Your task to perform on an android device: Go to Android settings Image 0: 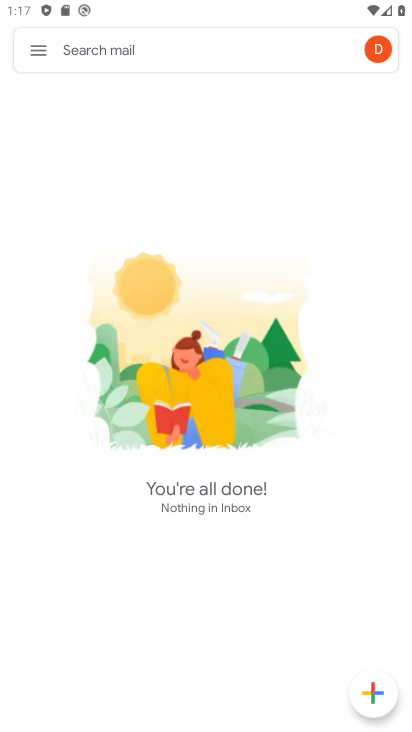
Step 0: press back button
Your task to perform on an android device: Go to Android settings Image 1: 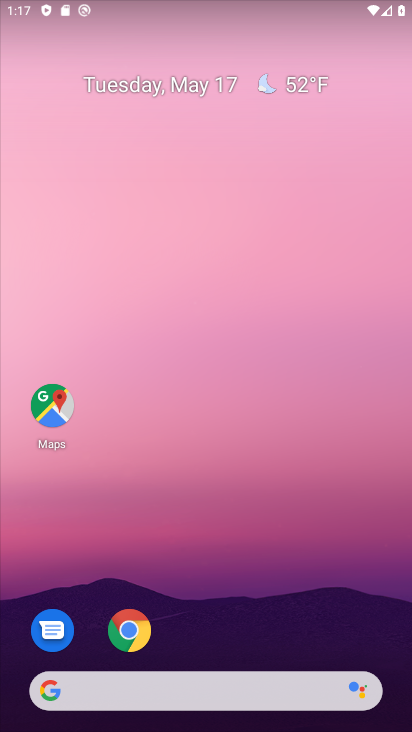
Step 1: drag from (232, 541) to (305, 51)
Your task to perform on an android device: Go to Android settings Image 2: 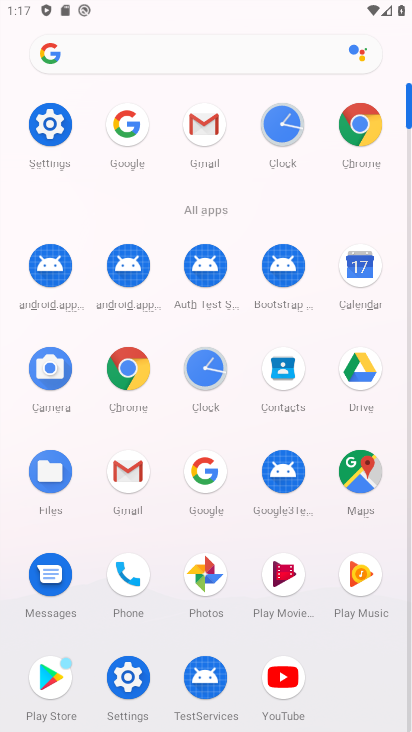
Step 2: click (44, 132)
Your task to perform on an android device: Go to Android settings Image 3: 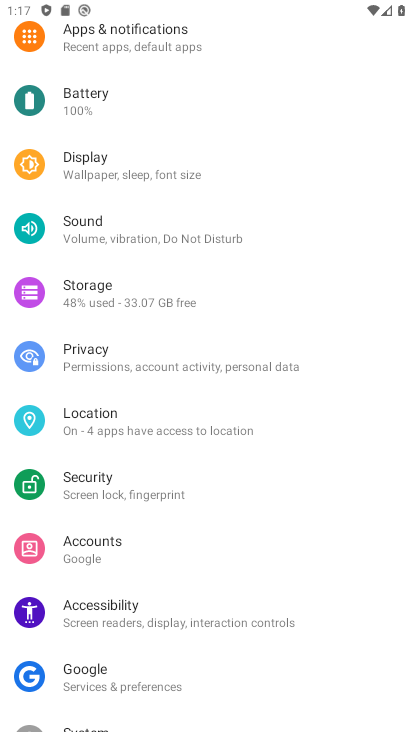
Step 3: drag from (162, 667) to (246, 68)
Your task to perform on an android device: Go to Android settings Image 4: 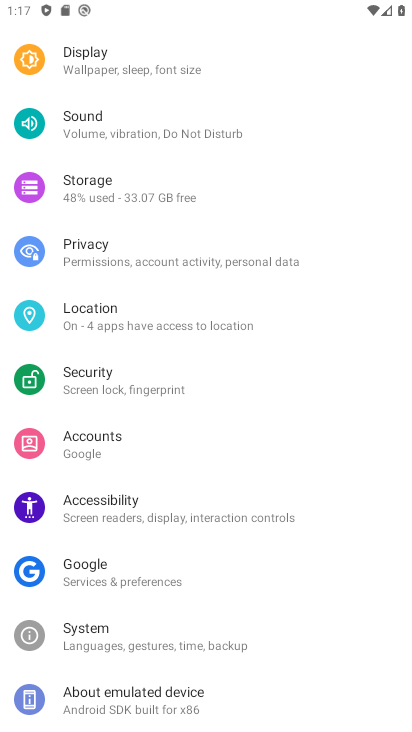
Step 4: drag from (188, 624) to (264, 40)
Your task to perform on an android device: Go to Android settings Image 5: 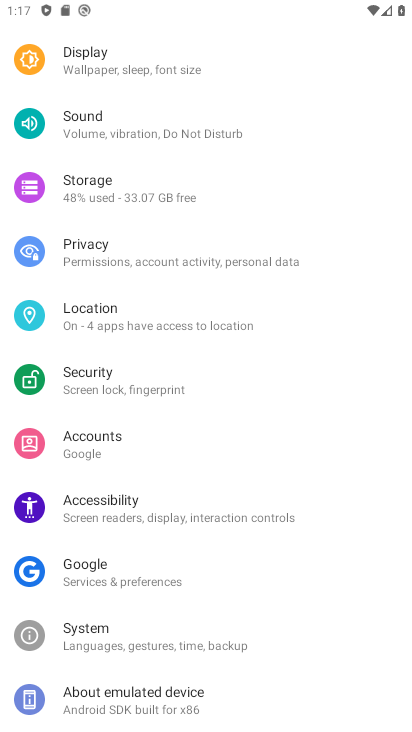
Step 5: drag from (132, 684) to (226, 199)
Your task to perform on an android device: Go to Android settings Image 6: 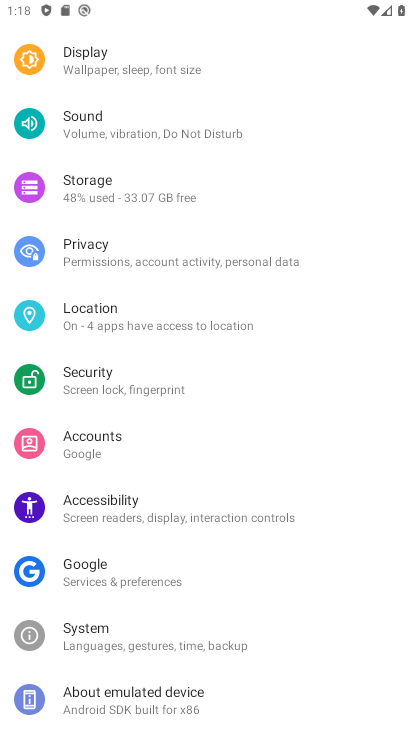
Step 6: click (116, 688)
Your task to perform on an android device: Go to Android settings Image 7: 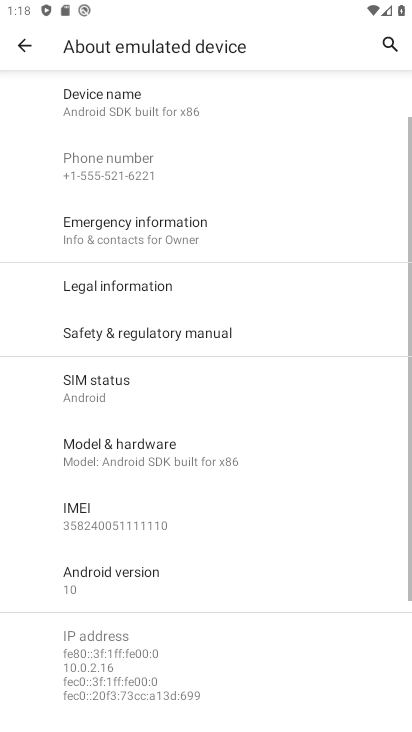
Step 7: click (98, 571)
Your task to perform on an android device: Go to Android settings Image 8: 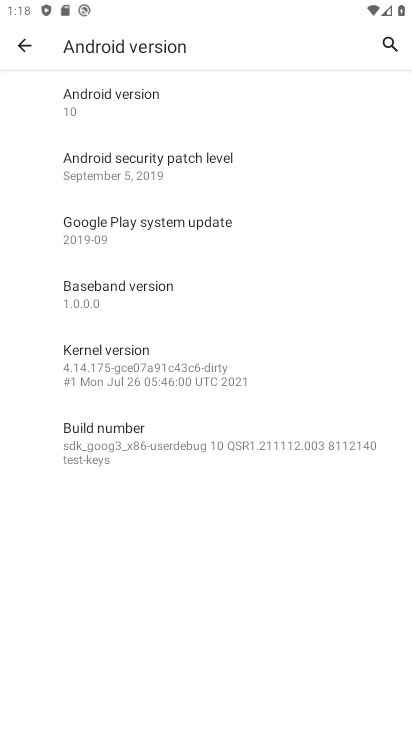
Step 8: task complete